Your task to perform on an android device: Show the shopping cart on walmart. Add sony triple a to the cart on walmart, then select checkout. Image 0: 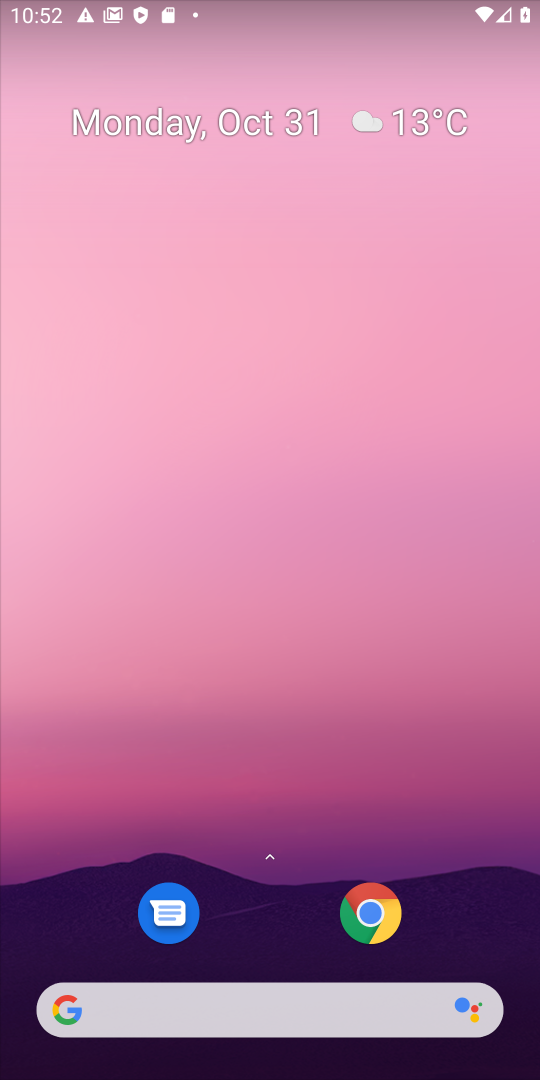
Step 0: click (284, 1033)
Your task to perform on an android device: Show the shopping cart on walmart. Add sony triple a to the cart on walmart, then select checkout. Image 1: 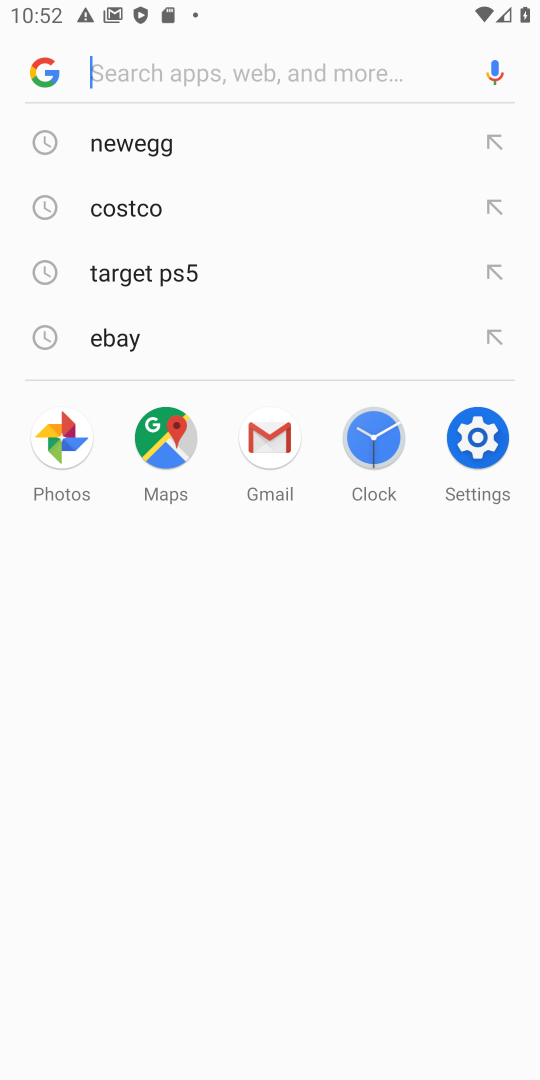
Step 1: click (284, 1025)
Your task to perform on an android device: Show the shopping cart on walmart. Add sony triple a to the cart on walmart, then select checkout. Image 2: 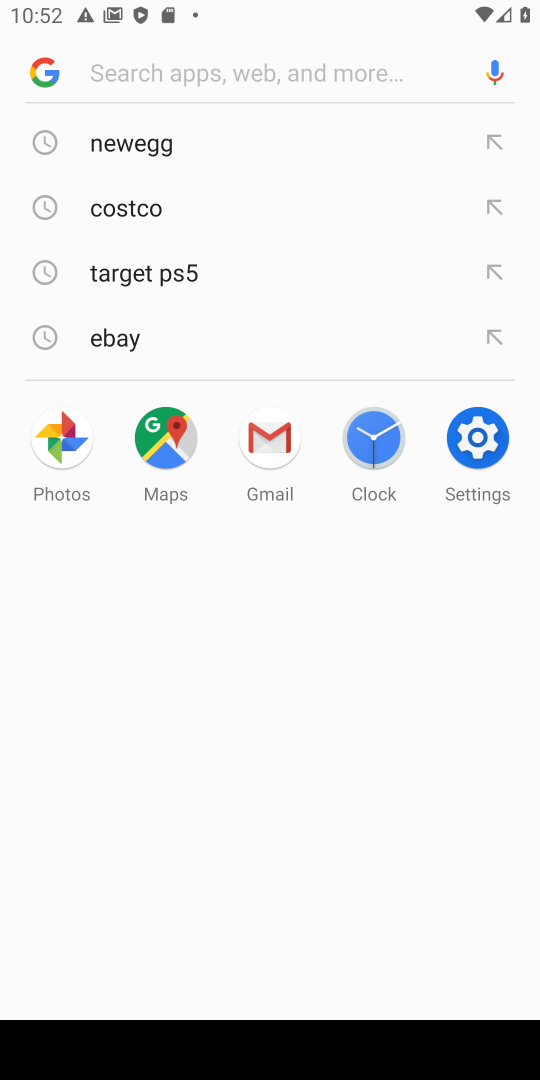
Step 2: type "walmart"
Your task to perform on an android device: Show the shopping cart on walmart. Add sony triple a to the cart on walmart, then select checkout. Image 3: 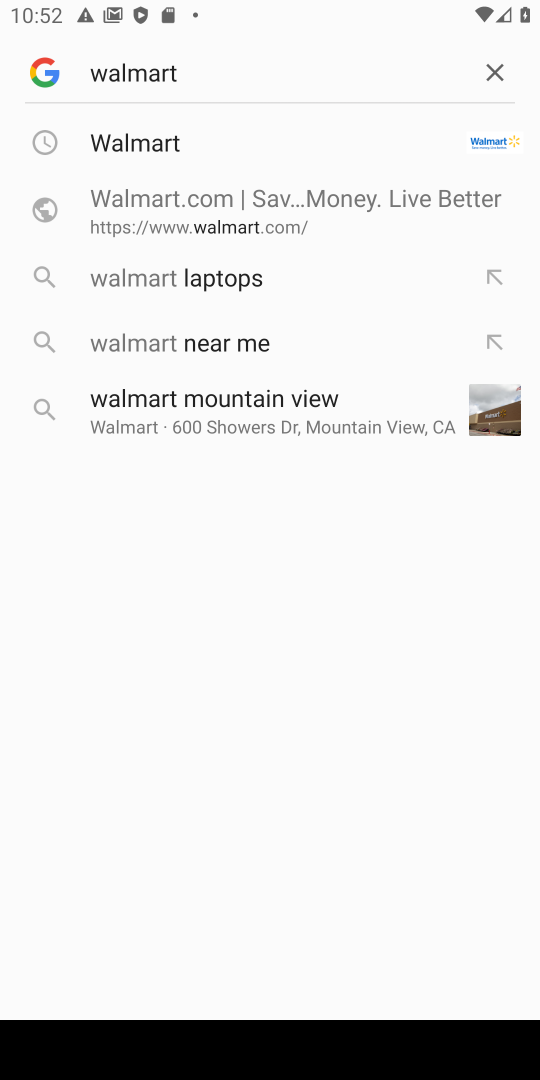
Step 3: click (201, 196)
Your task to perform on an android device: Show the shopping cart on walmart. Add sony triple a to the cart on walmart, then select checkout. Image 4: 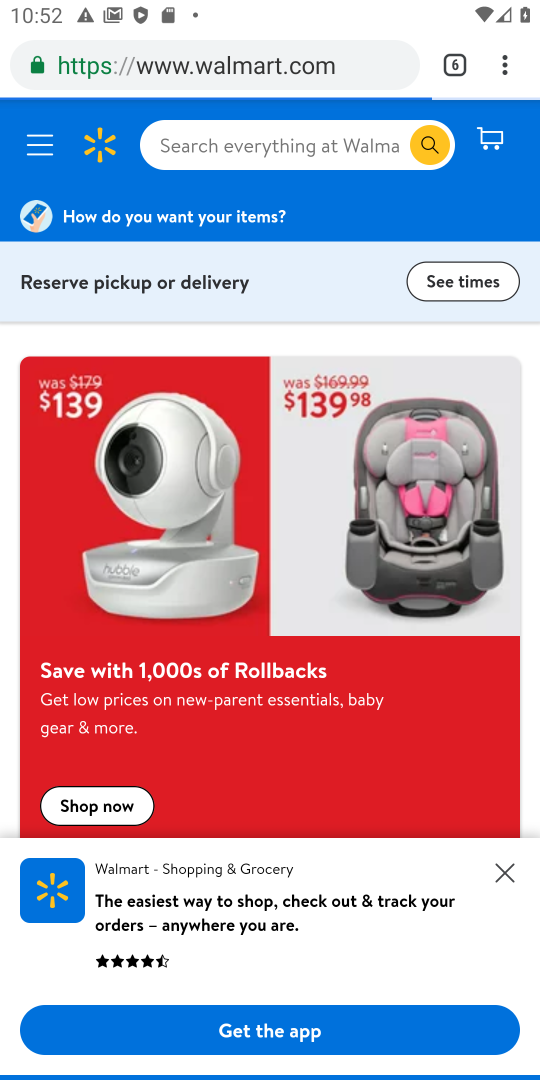
Step 4: click (219, 157)
Your task to perform on an android device: Show the shopping cart on walmart. Add sony triple a to the cart on walmart, then select checkout. Image 5: 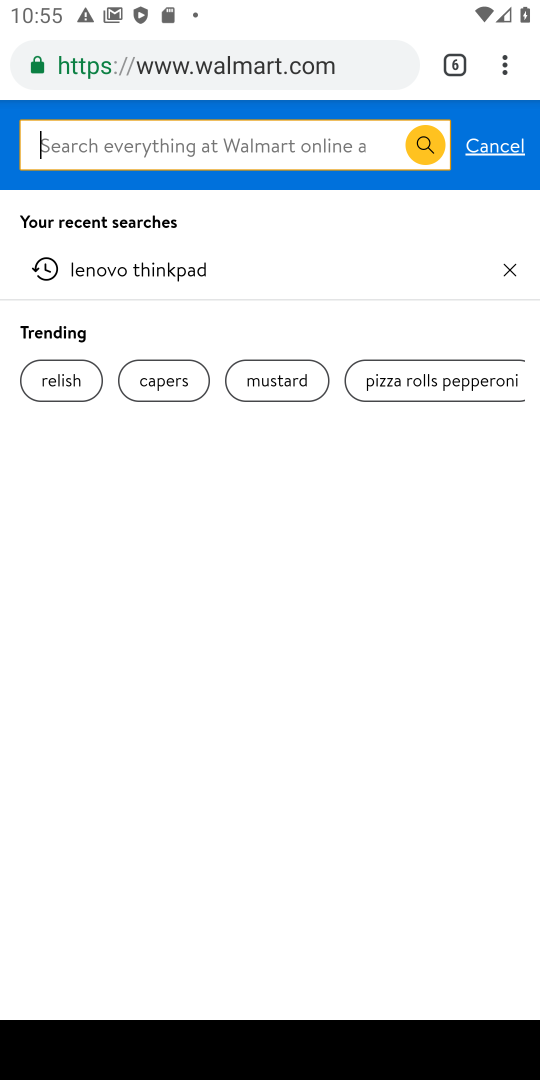
Step 5: task complete